Your task to perform on an android device: Open Yahoo.com Image 0: 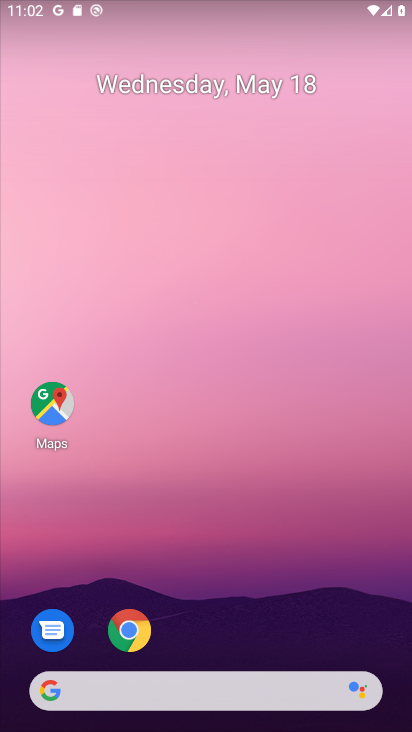
Step 0: click (136, 628)
Your task to perform on an android device: Open Yahoo.com Image 1: 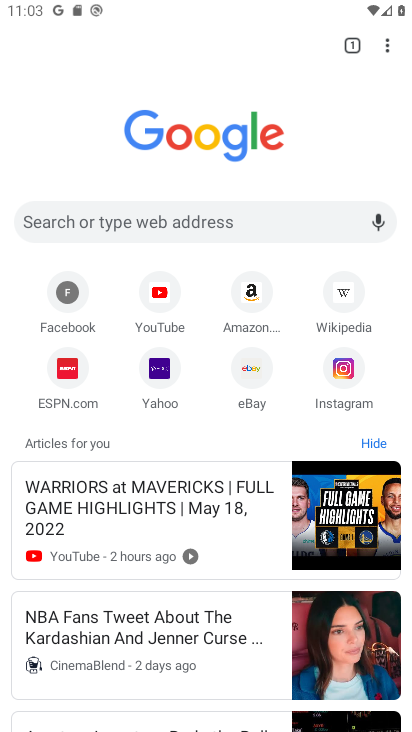
Step 1: click (156, 361)
Your task to perform on an android device: Open Yahoo.com Image 2: 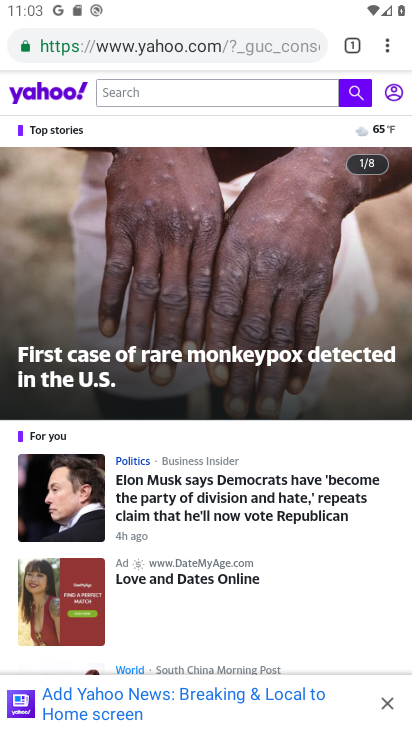
Step 2: task complete